Your task to perform on an android device: check the backup settings in the google photos Image 0: 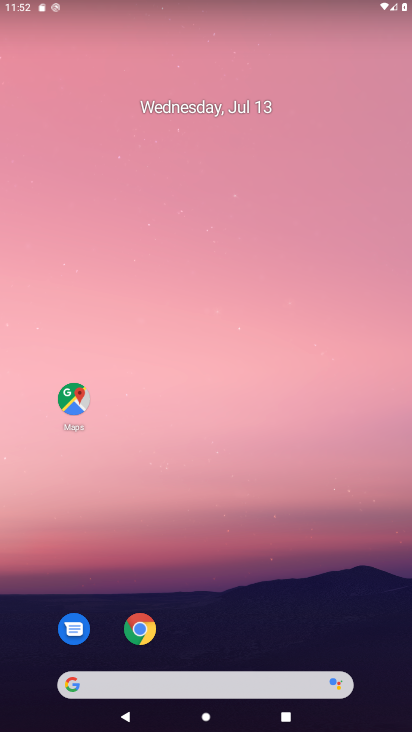
Step 0: drag from (300, 616) to (314, 348)
Your task to perform on an android device: check the backup settings in the google photos Image 1: 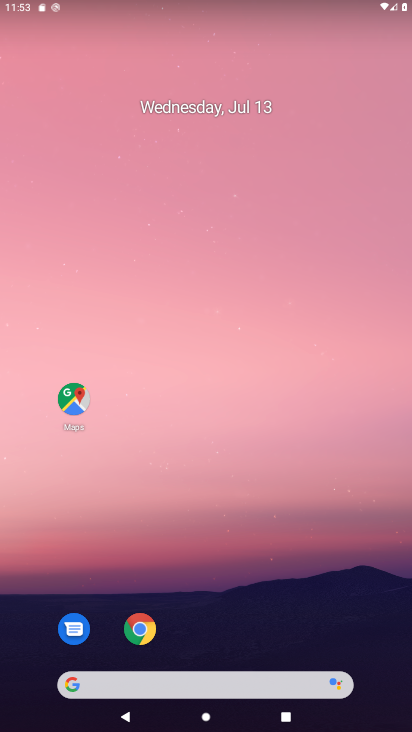
Step 1: drag from (263, 592) to (239, 242)
Your task to perform on an android device: check the backup settings in the google photos Image 2: 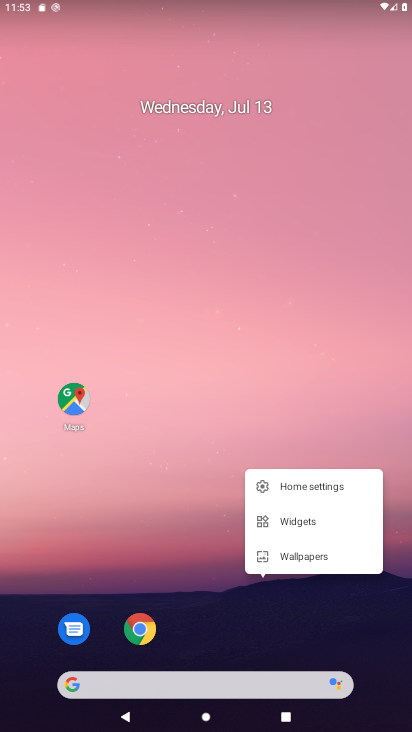
Step 2: click (223, 459)
Your task to perform on an android device: check the backup settings in the google photos Image 3: 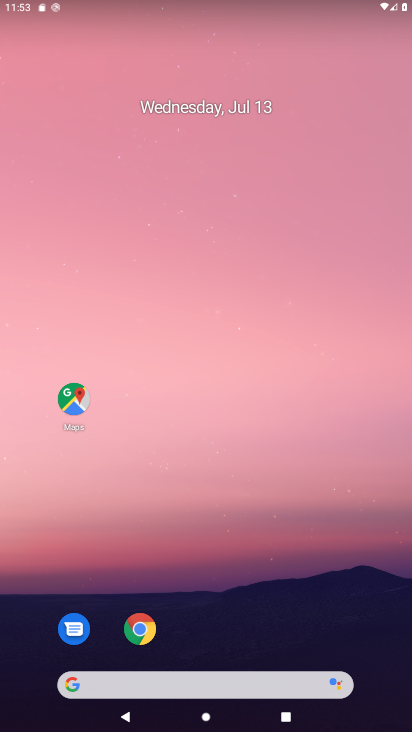
Step 3: drag from (246, 654) to (229, 244)
Your task to perform on an android device: check the backup settings in the google photos Image 4: 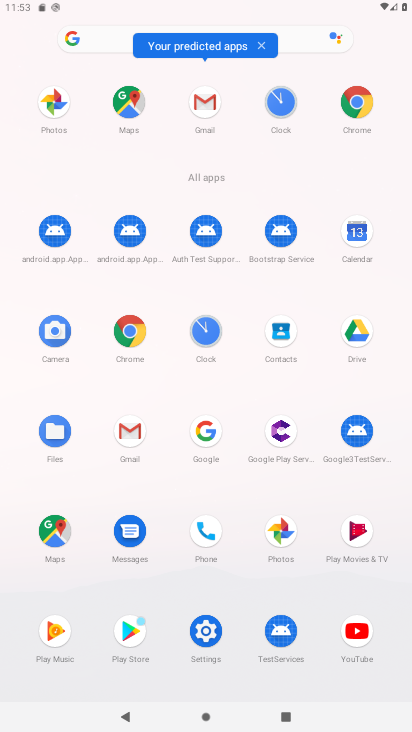
Step 4: click (59, 128)
Your task to perform on an android device: check the backup settings in the google photos Image 5: 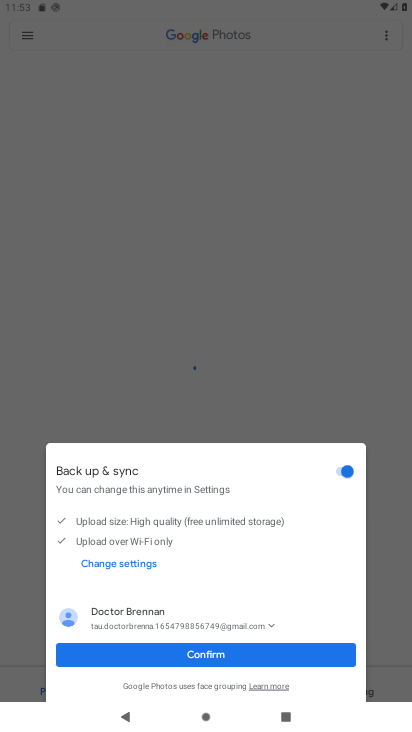
Step 5: click (267, 664)
Your task to perform on an android device: check the backup settings in the google photos Image 6: 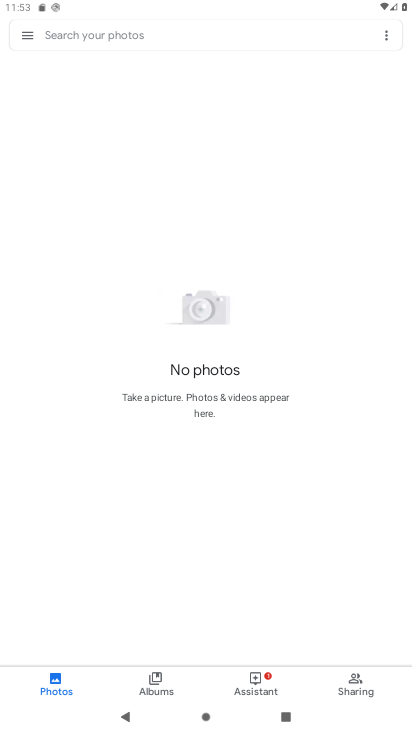
Step 6: click (381, 40)
Your task to perform on an android device: check the backup settings in the google photos Image 7: 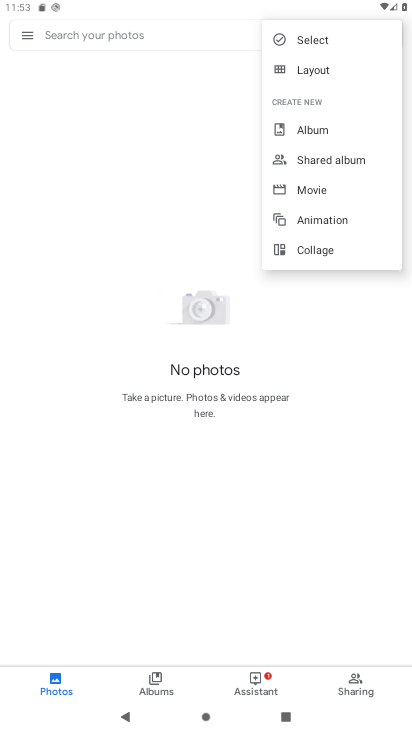
Step 7: click (277, 315)
Your task to perform on an android device: check the backup settings in the google photos Image 8: 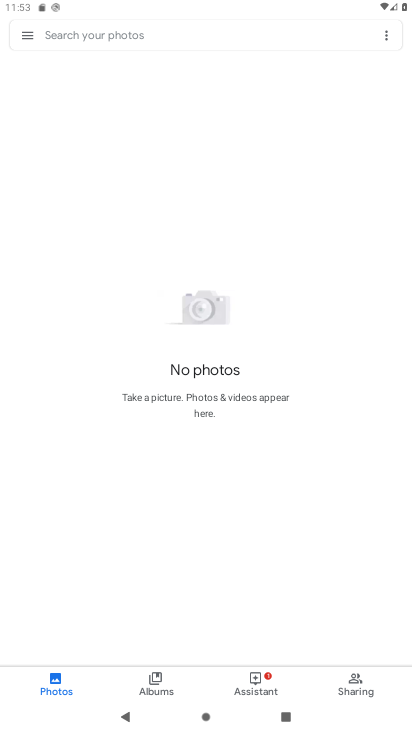
Step 8: click (30, 37)
Your task to perform on an android device: check the backup settings in the google photos Image 9: 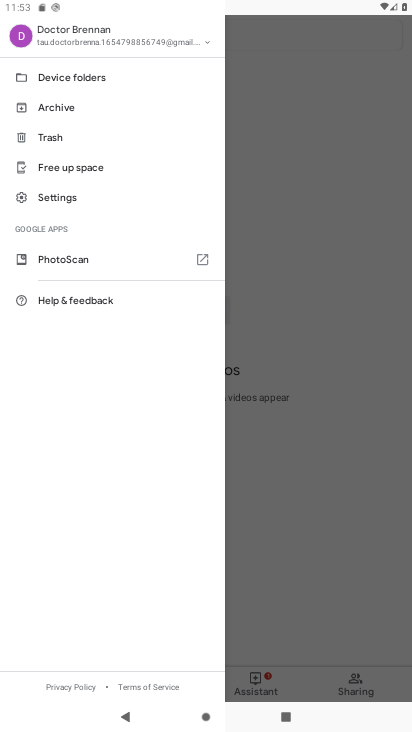
Step 9: click (80, 196)
Your task to perform on an android device: check the backup settings in the google photos Image 10: 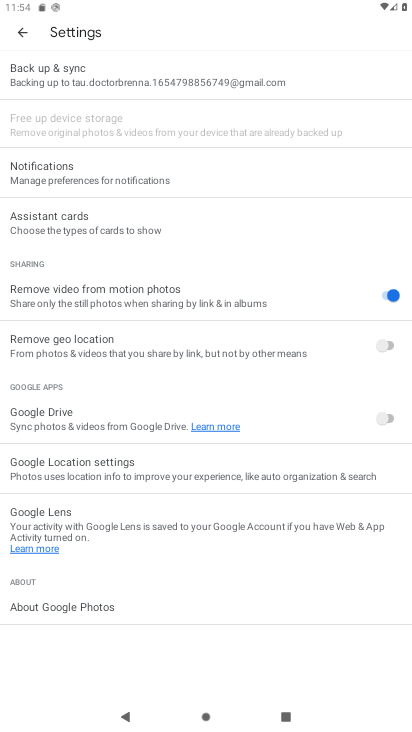
Step 10: click (222, 89)
Your task to perform on an android device: check the backup settings in the google photos Image 11: 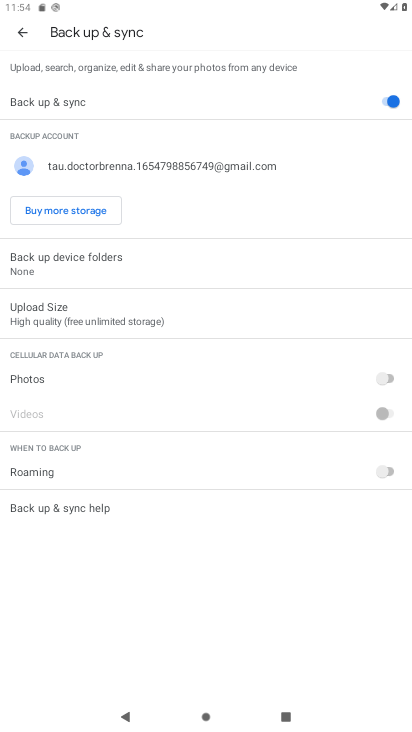
Step 11: task complete